Your task to perform on an android device: add a contact Image 0: 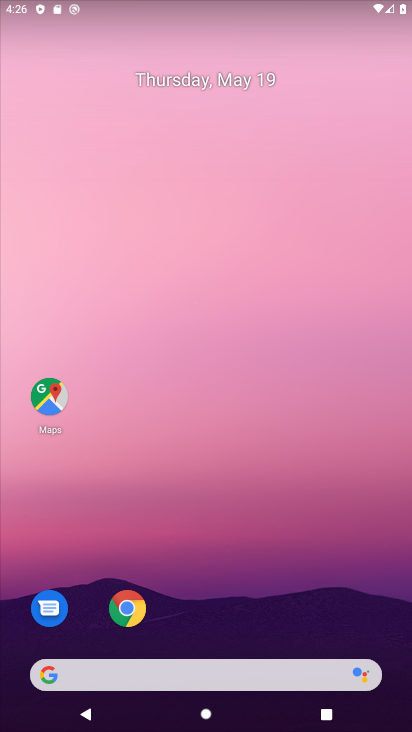
Step 0: press home button
Your task to perform on an android device: add a contact Image 1: 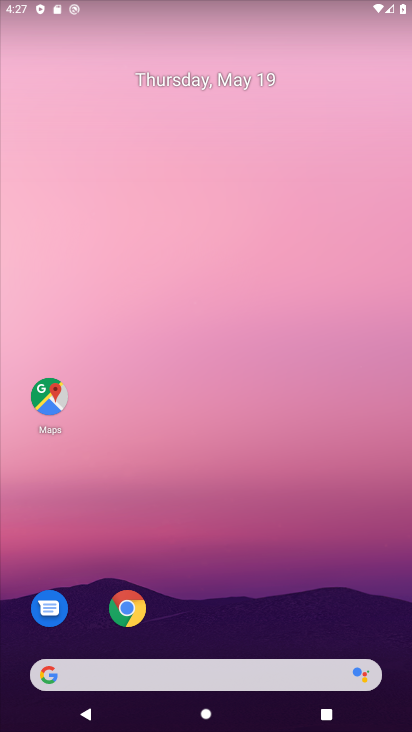
Step 1: drag from (315, 599) to (286, 10)
Your task to perform on an android device: add a contact Image 2: 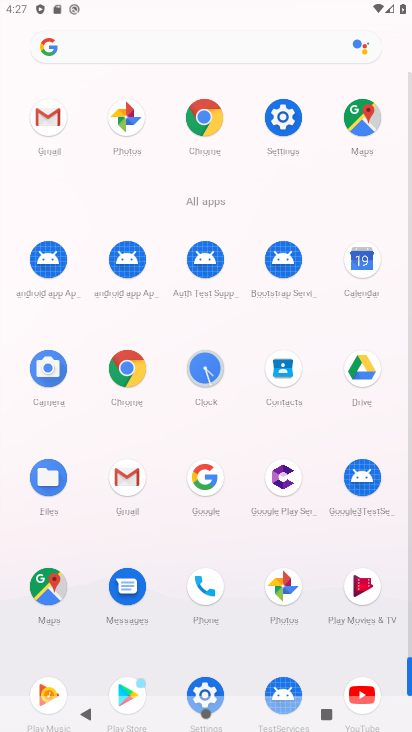
Step 2: click (292, 366)
Your task to perform on an android device: add a contact Image 3: 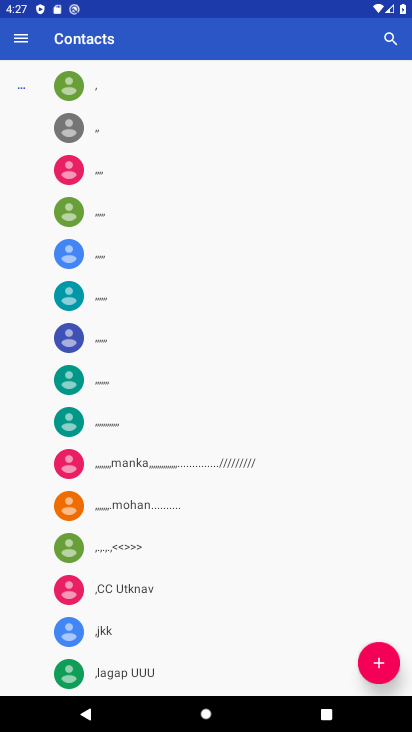
Step 3: click (384, 660)
Your task to perform on an android device: add a contact Image 4: 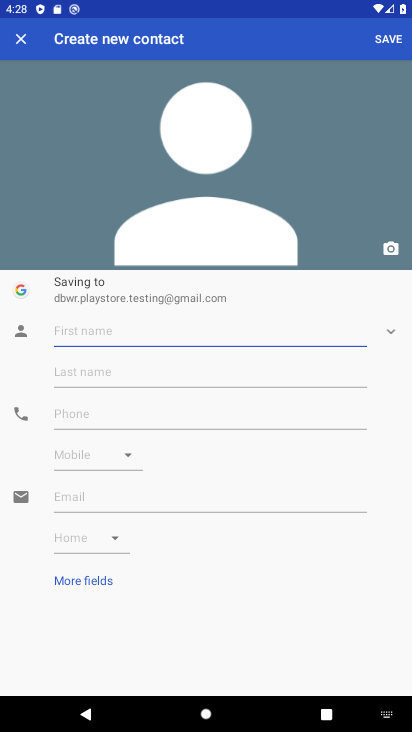
Step 4: type "boly"
Your task to perform on an android device: add a contact Image 5: 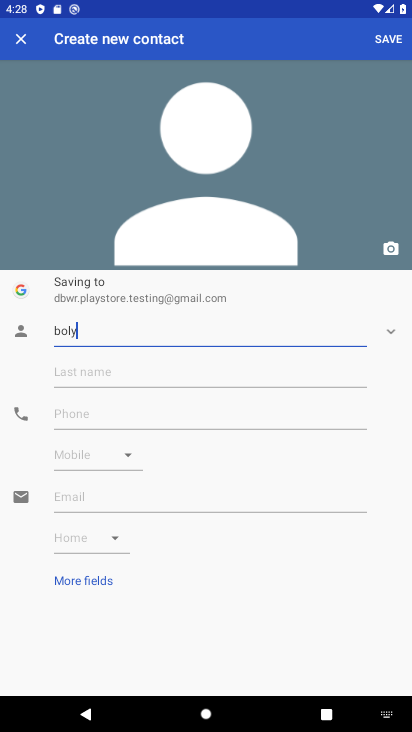
Step 5: click (398, 41)
Your task to perform on an android device: add a contact Image 6: 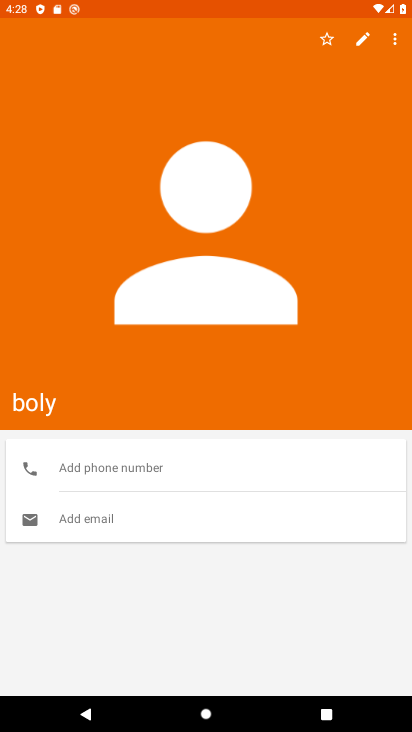
Step 6: task complete